Your task to perform on an android device: change the clock display to digital Image 0: 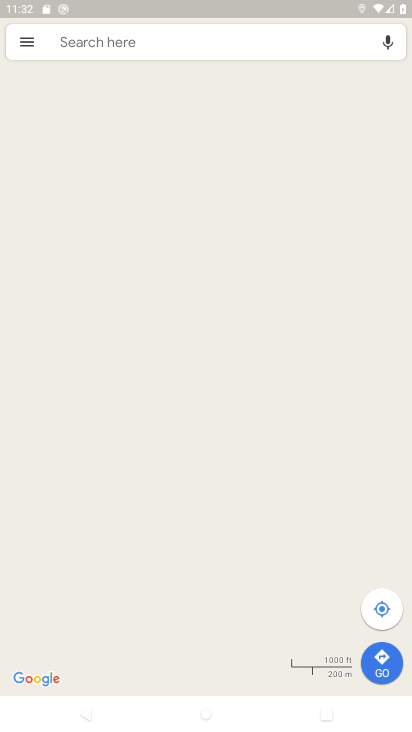
Step 0: press home button
Your task to perform on an android device: change the clock display to digital Image 1: 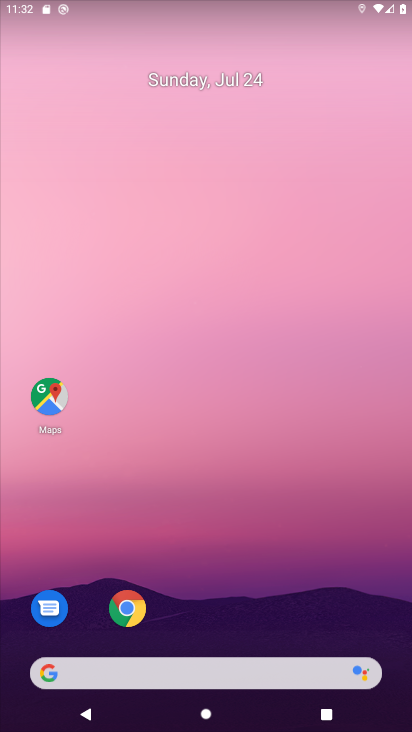
Step 1: drag from (41, 592) to (239, 125)
Your task to perform on an android device: change the clock display to digital Image 2: 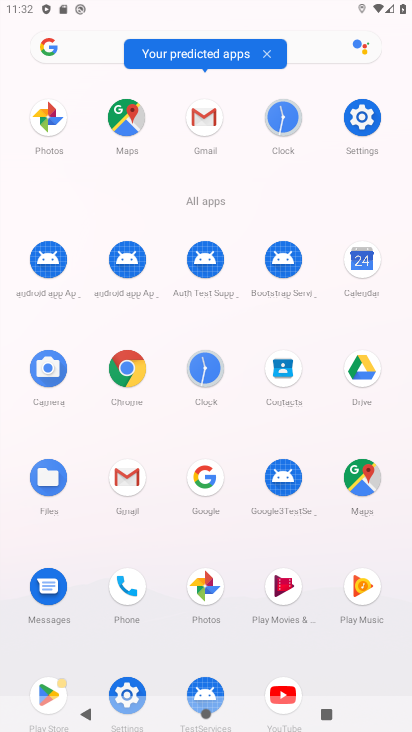
Step 2: click (286, 117)
Your task to perform on an android device: change the clock display to digital Image 3: 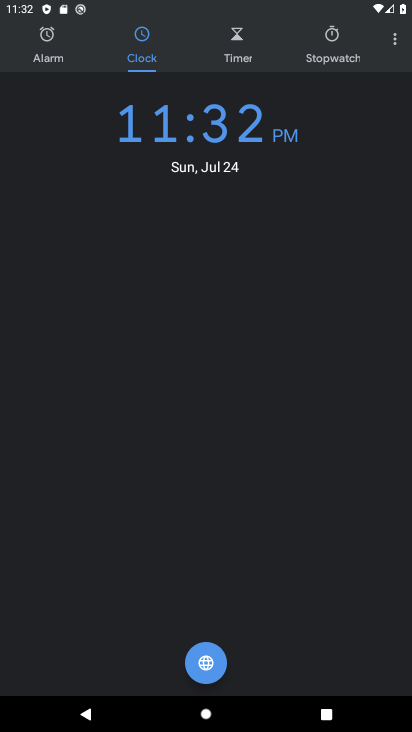
Step 3: click (396, 36)
Your task to perform on an android device: change the clock display to digital Image 4: 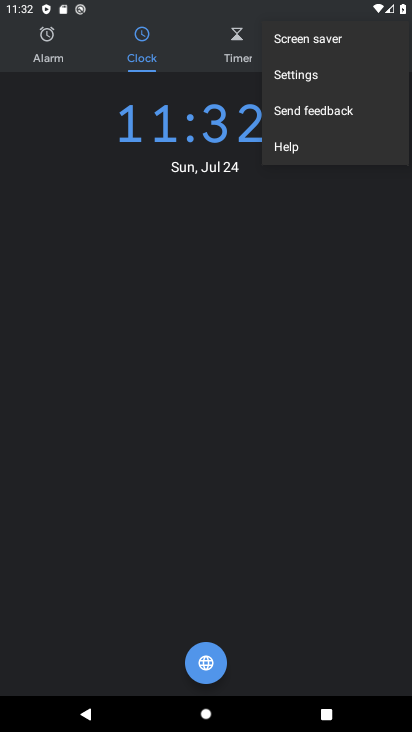
Step 4: click (308, 80)
Your task to perform on an android device: change the clock display to digital Image 5: 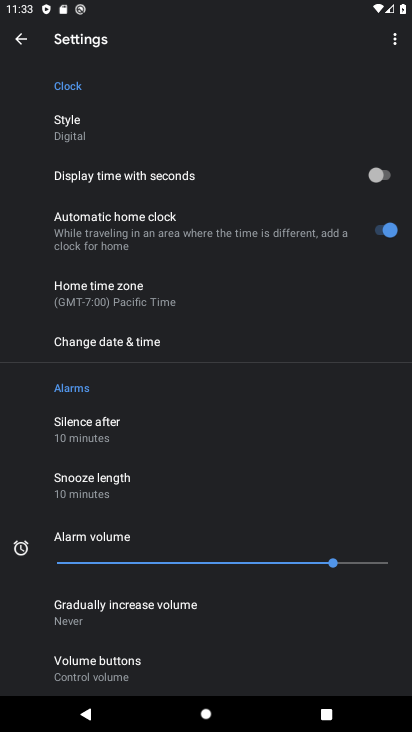
Step 5: task complete